Your task to perform on an android device: Open the web browser Image 0: 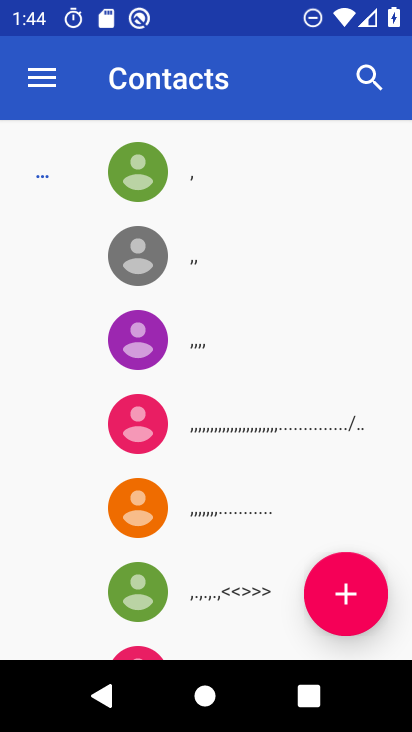
Step 0: press home button
Your task to perform on an android device: Open the web browser Image 1: 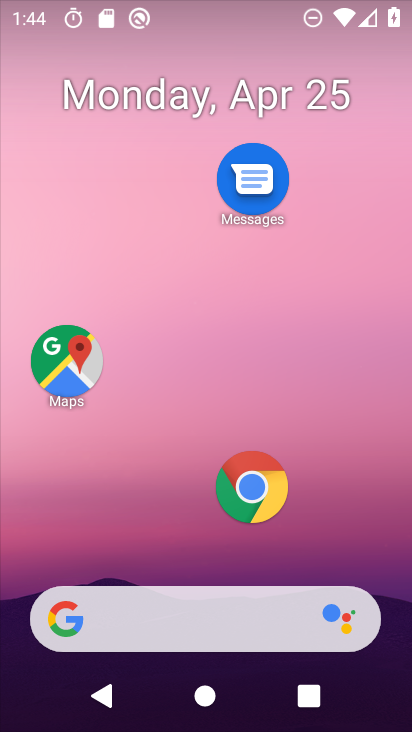
Step 1: drag from (236, 586) to (242, 3)
Your task to perform on an android device: Open the web browser Image 2: 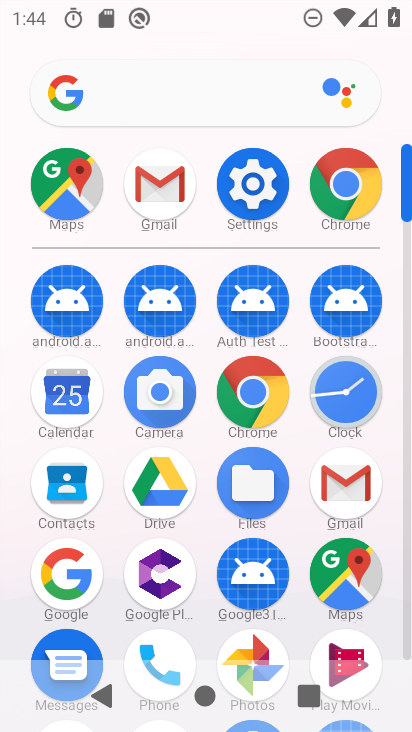
Step 2: click (250, 392)
Your task to perform on an android device: Open the web browser Image 3: 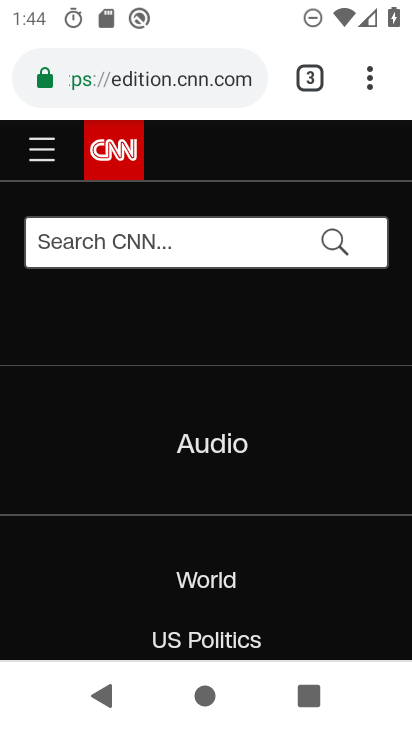
Step 3: task complete